Your task to perform on an android device: turn off location Image 0: 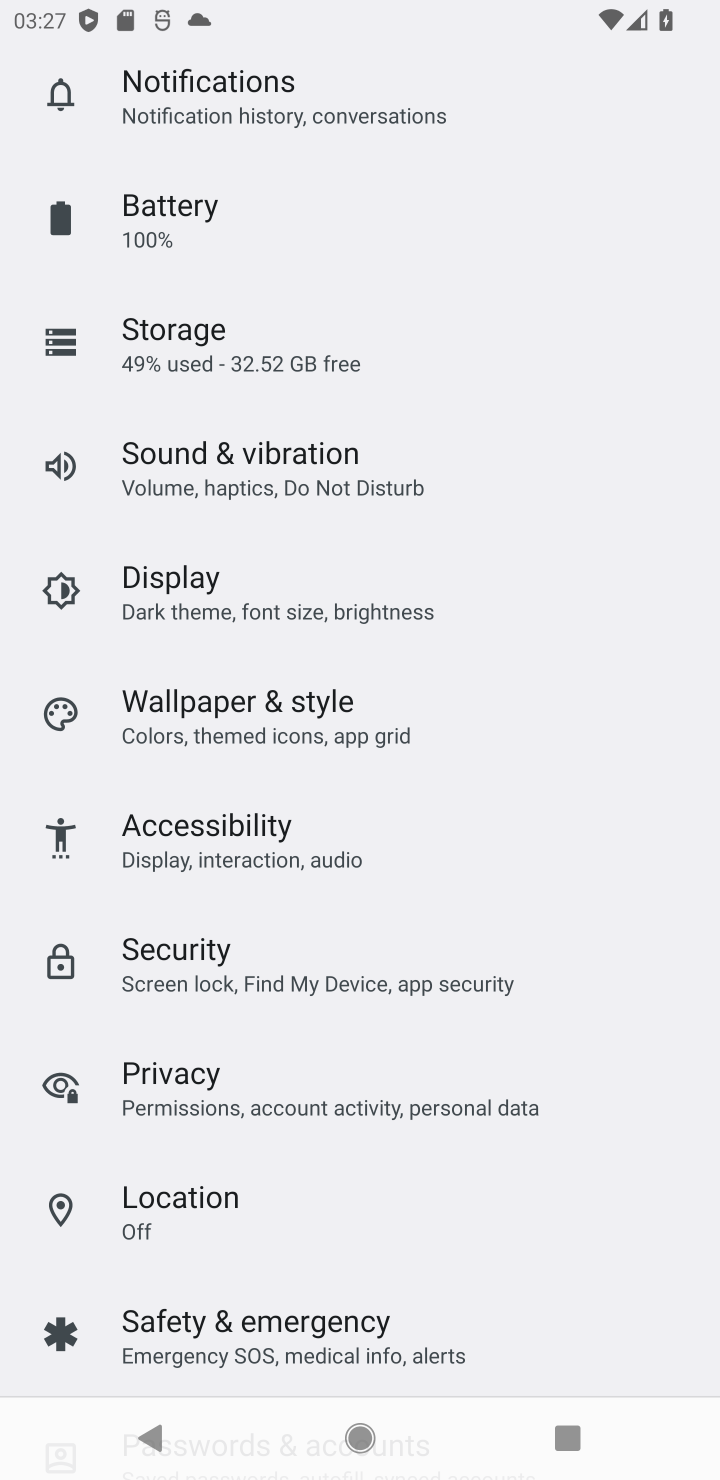
Step 0: click (176, 1212)
Your task to perform on an android device: turn off location Image 1: 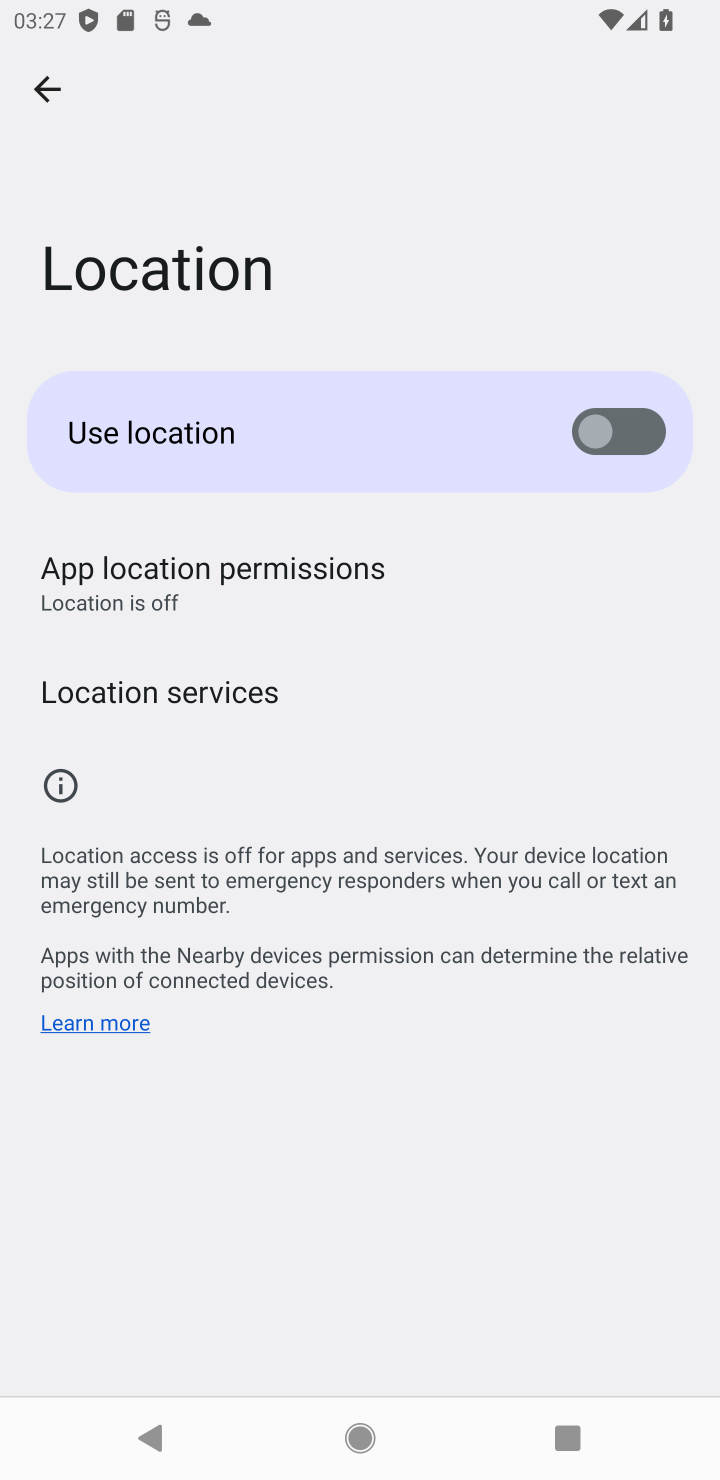
Step 1: click (159, 691)
Your task to perform on an android device: turn off location Image 2: 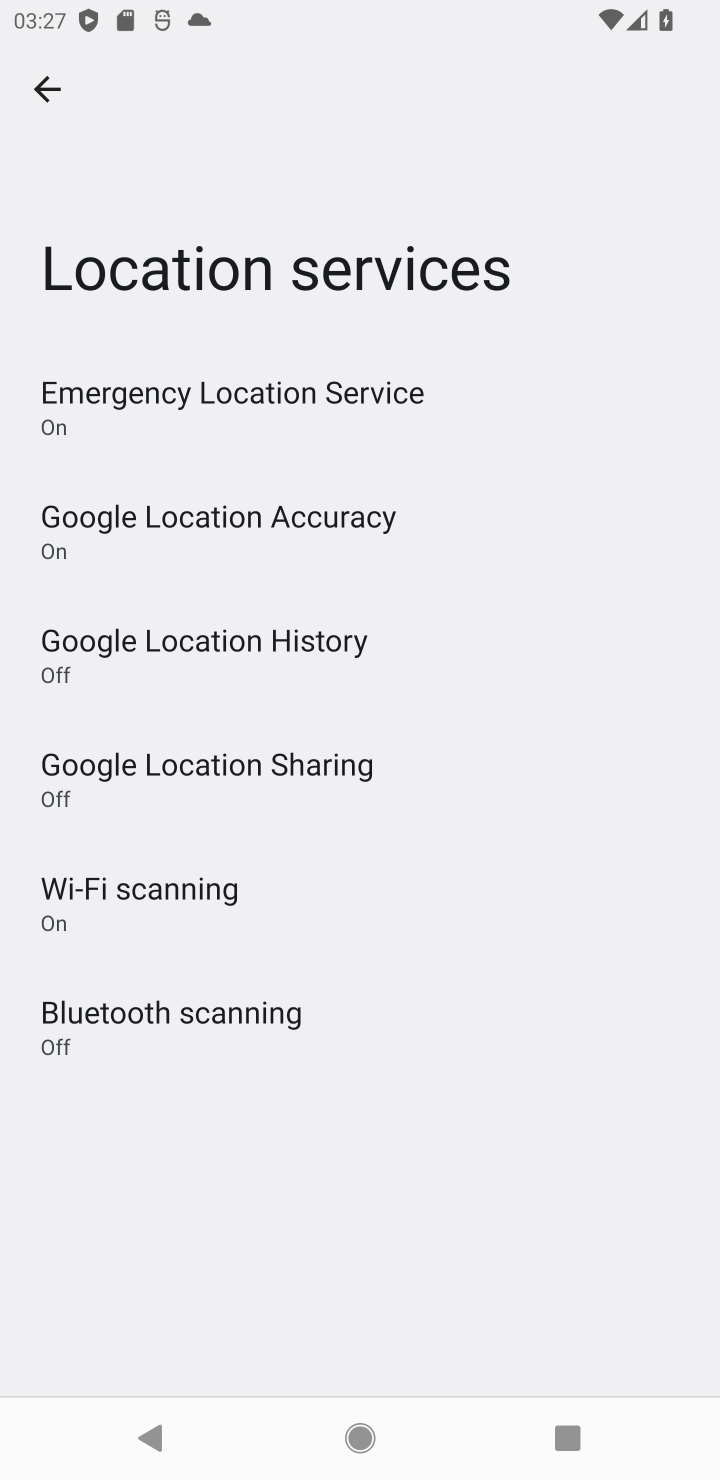
Step 2: click (44, 81)
Your task to perform on an android device: turn off location Image 3: 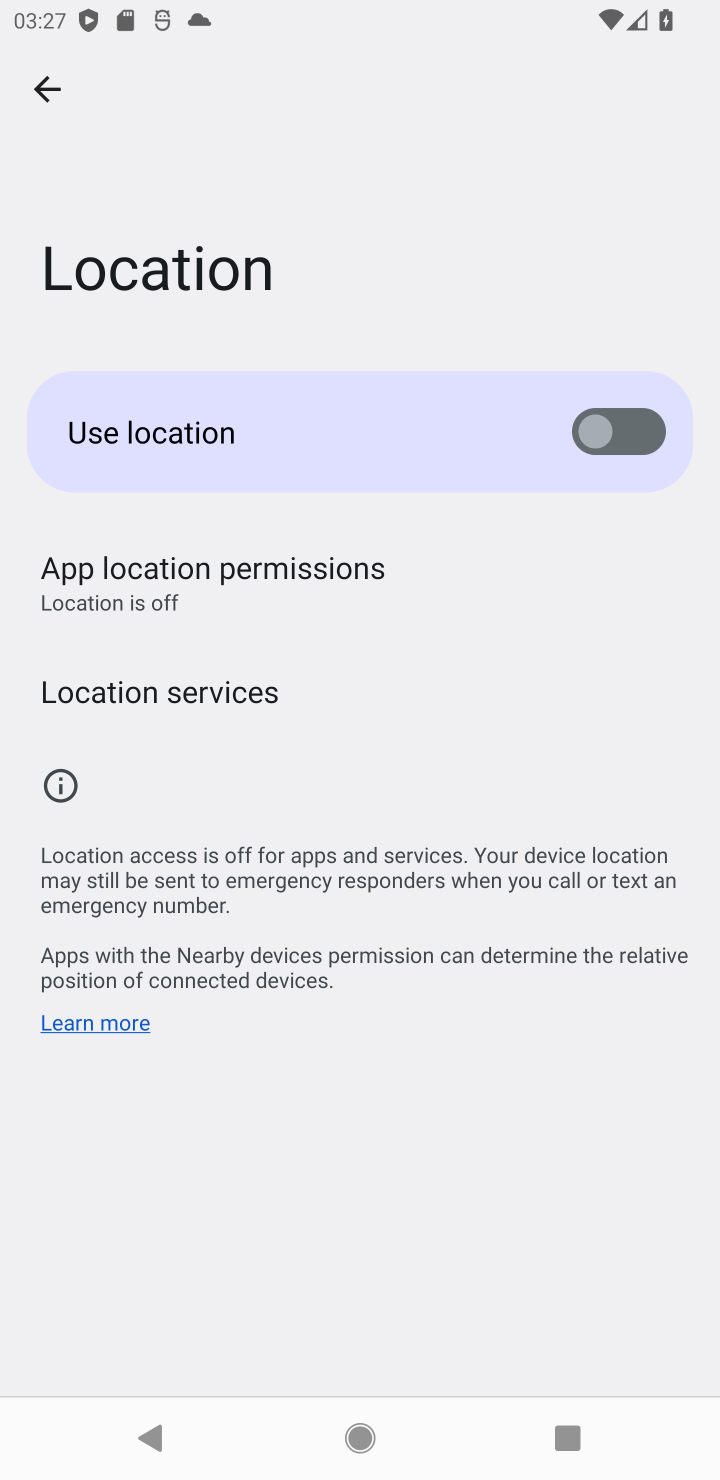
Step 3: task complete